Your task to perform on an android device: Turn off the flashlight Image 0: 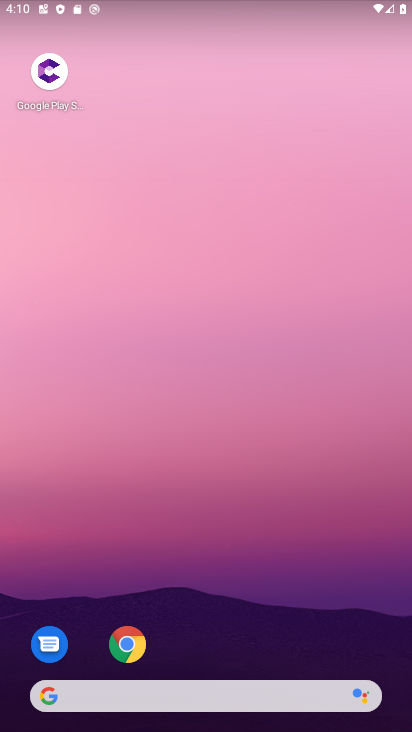
Step 0: drag from (230, 670) to (221, 4)
Your task to perform on an android device: Turn off the flashlight Image 1: 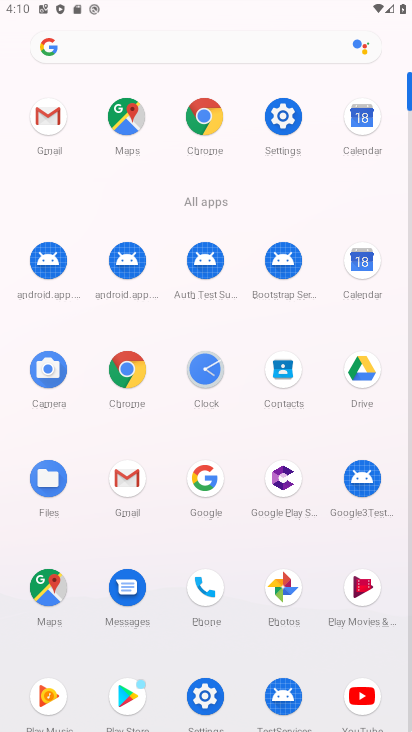
Step 1: click (295, 118)
Your task to perform on an android device: Turn off the flashlight Image 2: 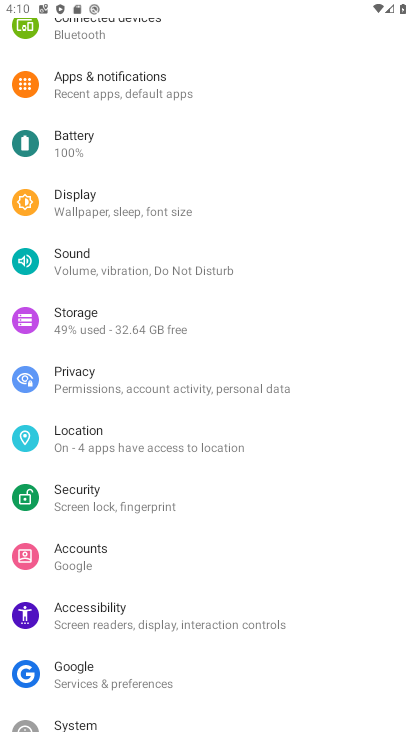
Step 2: task complete